Your task to perform on an android device: Open the web browser Image 0: 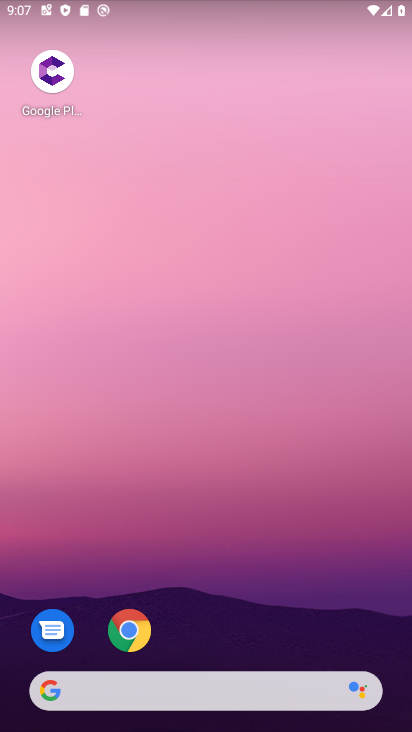
Step 0: click (136, 637)
Your task to perform on an android device: Open the web browser Image 1: 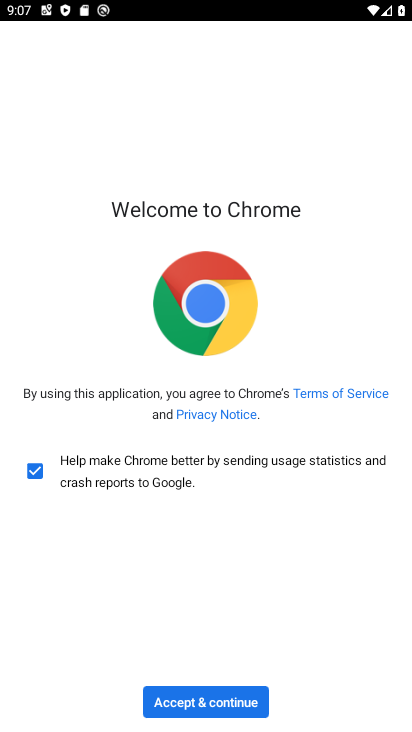
Step 1: click (180, 710)
Your task to perform on an android device: Open the web browser Image 2: 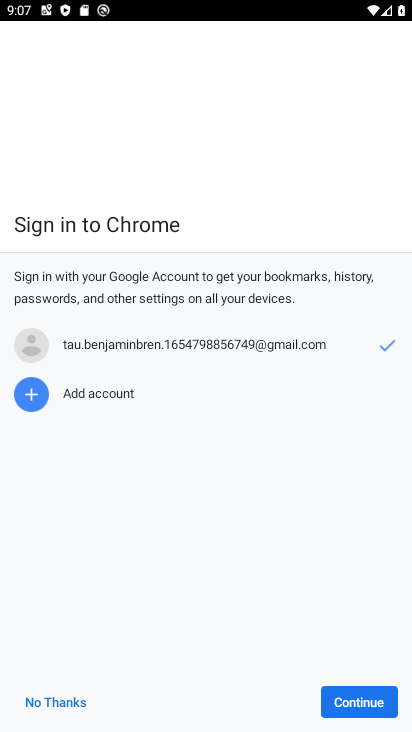
Step 2: click (375, 705)
Your task to perform on an android device: Open the web browser Image 3: 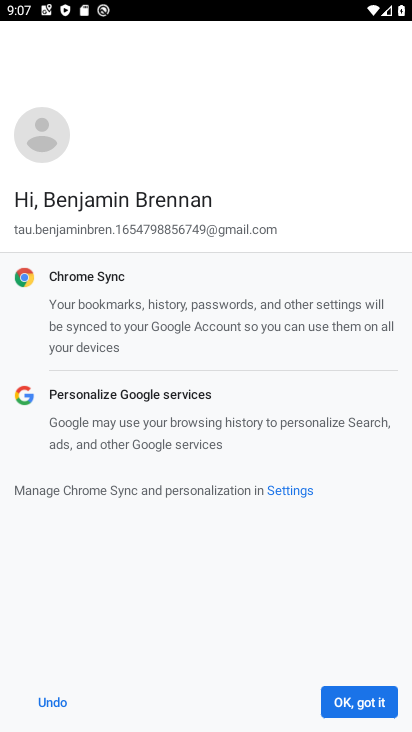
Step 3: click (375, 705)
Your task to perform on an android device: Open the web browser Image 4: 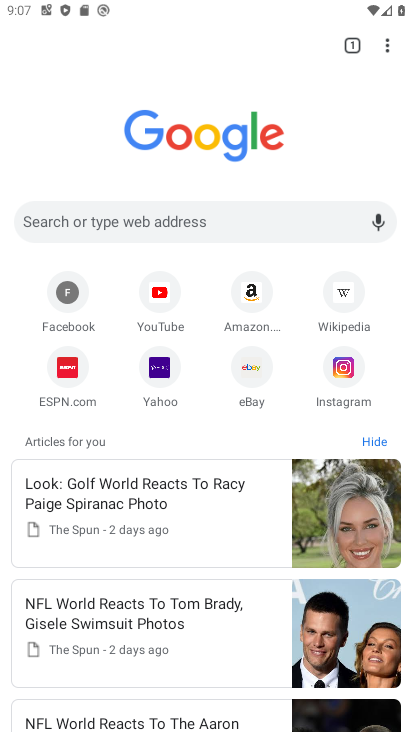
Step 4: task complete